Your task to perform on an android device: Open Amazon Image 0: 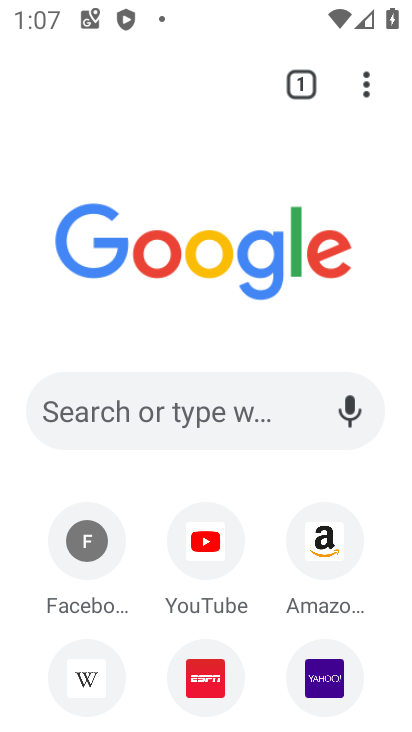
Step 0: click (318, 541)
Your task to perform on an android device: Open Amazon Image 1: 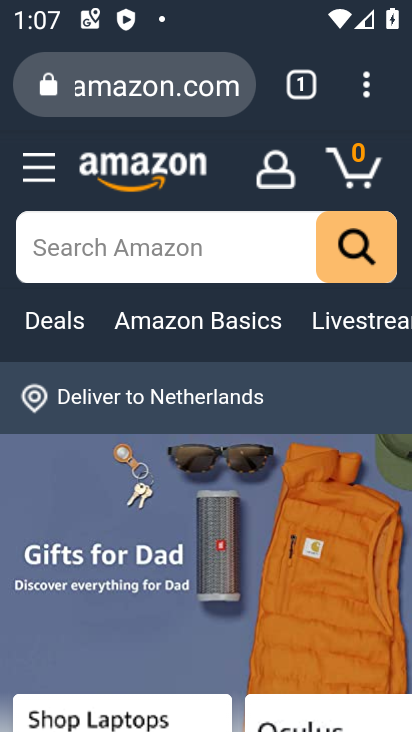
Step 1: task complete